Your task to perform on an android device: open a bookmark in the chrome app Image 0: 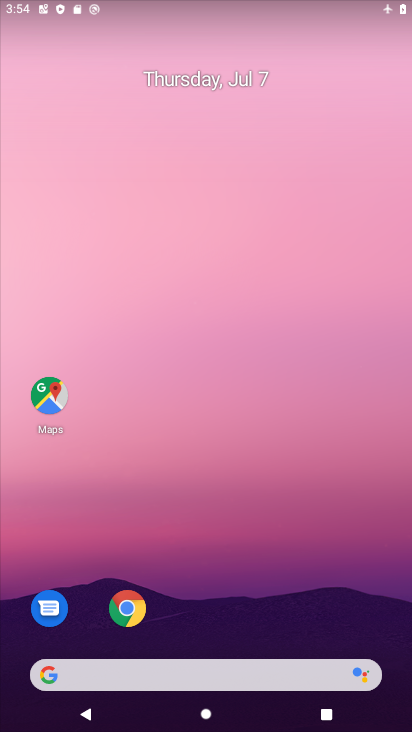
Step 0: click (131, 609)
Your task to perform on an android device: open a bookmark in the chrome app Image 1: 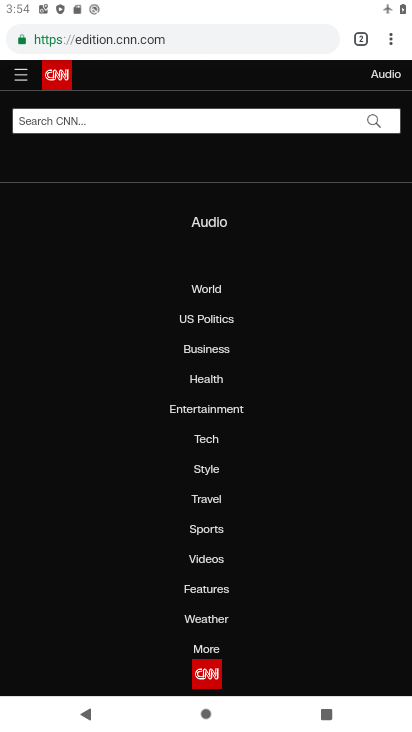
Step 1: click (390, 44)
Your task to perform on an android device: open a bookmark in the chrome app Image 2: 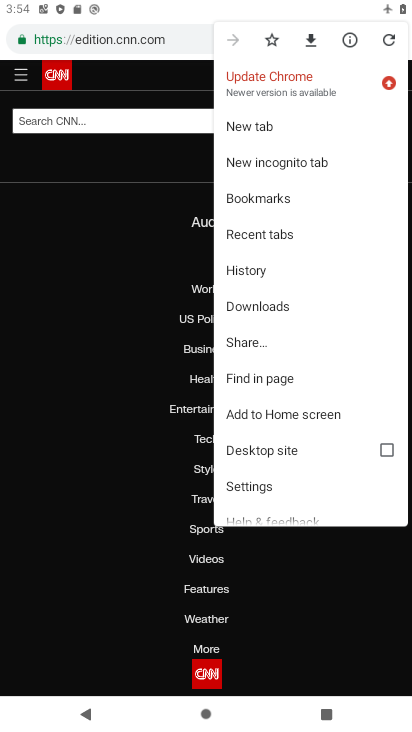
Step 2: click (302, 201)
Your task to perform on an android device: open a bookmark in the chrome app Image 3: 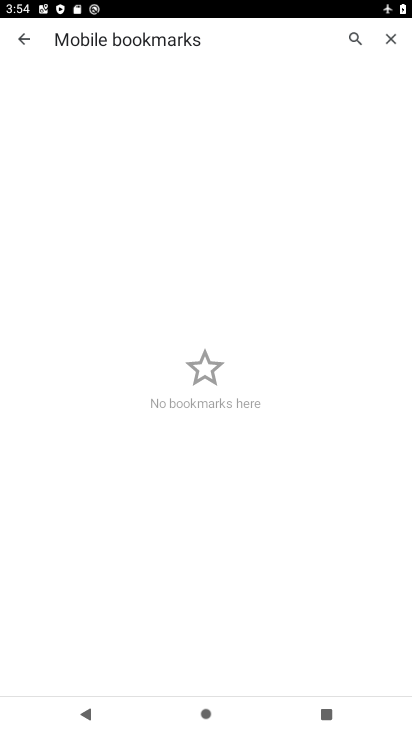
Step 3: task complete